Your task to perform on an android device: Open the calendar app, open the side menu, and click the "Day" option Image 0: 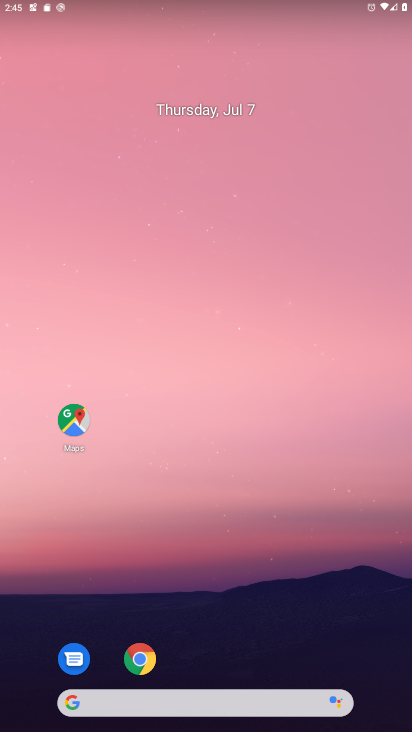
Step 0: drag from (191, 627) to (321, 87)
Your task to perform on an android device: Open the calendar app, open the side menu, and click the "Day" option Image 1: 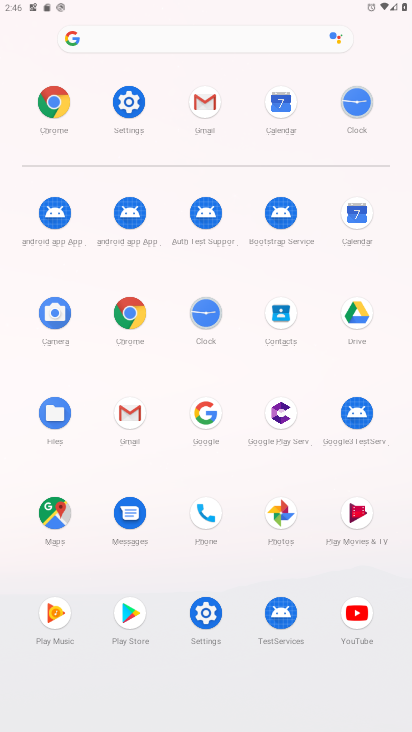
Step 1: click (142, 416)
Your task to perform on an android device: Open the calendar app, open the side menu, and click the "Day" option Image 2: 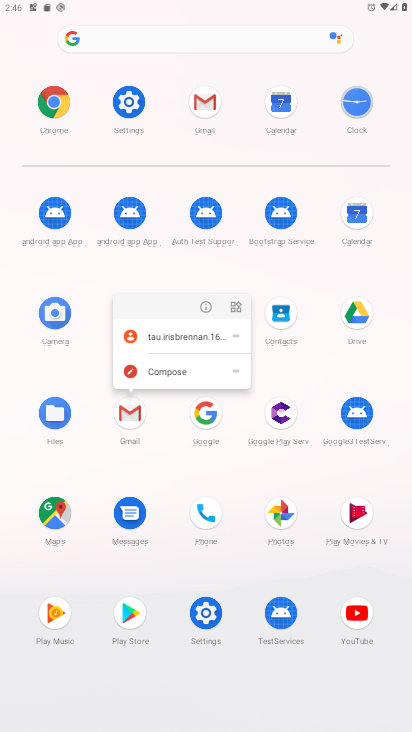
Step 2: click (362, 211)
Your task to perform on an android device: Open the calendar app, open the side menu, and click the "Day" option Image 3: 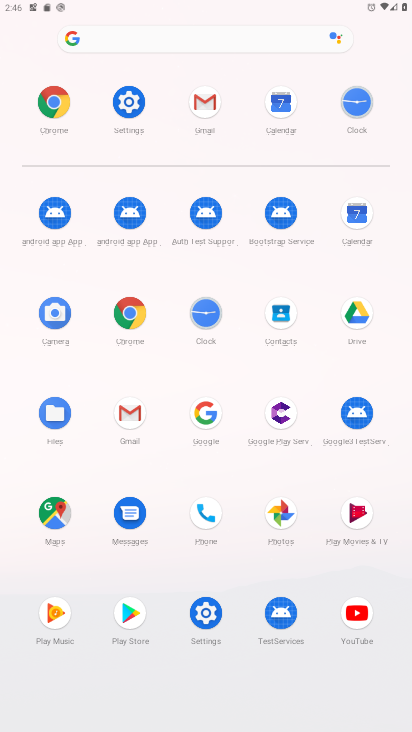
Step 3: click (360, 230)
Your task to perform on an android device: Open the calendar app, open the side menu, and click the "Day" option Image 4: 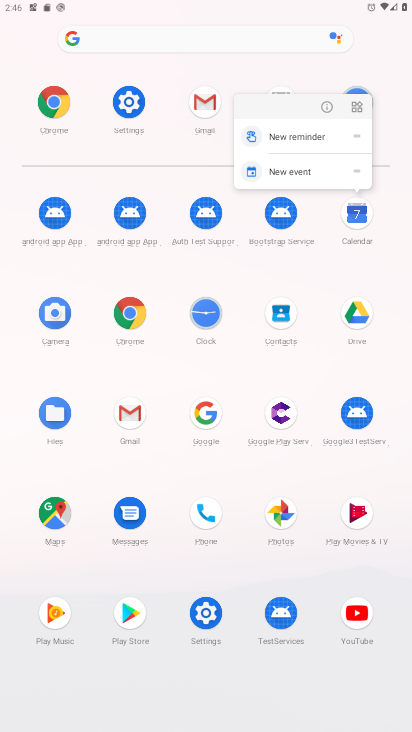
Step 4: click (320, 108)
Your task to perform on an android device: Open the calendar app, open the side menu, and click the "Day" option Image 5: 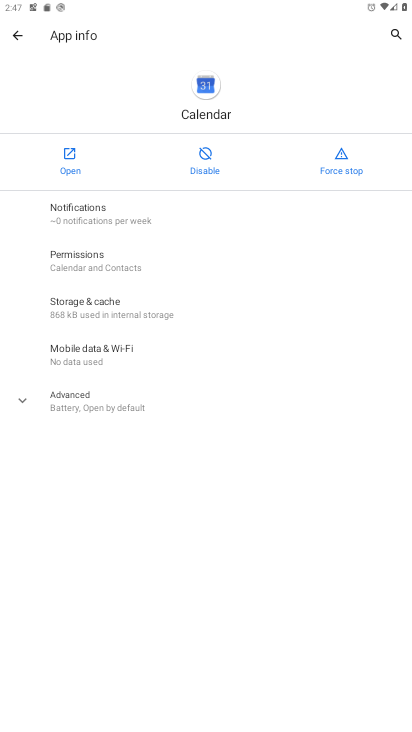
Step 5: click (52, 162)
Your task to perform on an android device: Open the calendar app, open the side menu, and click the "Day" option Image 6: 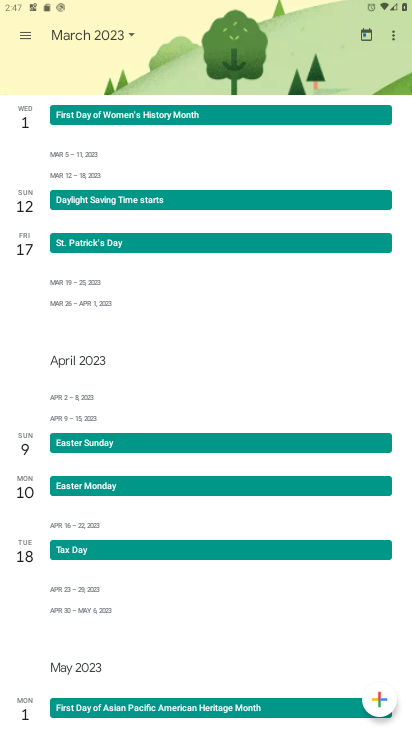
Step 6: drag from (178, 462) to (288, 129)
Your task to perform on an android device: Open the calendar app, open the side menu, and click the "Day" option Image 7: 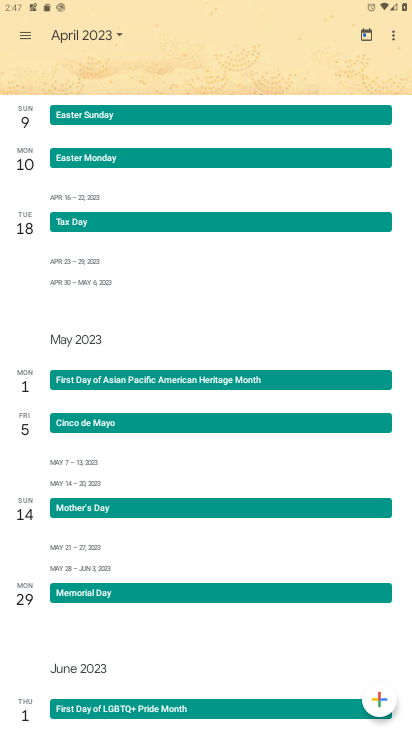
Step 7: drag from (217, 601) to (259, 363)
Your task to perform on an android device: Open the calendar app, open the side menu, and click the "Day" option Image 8: 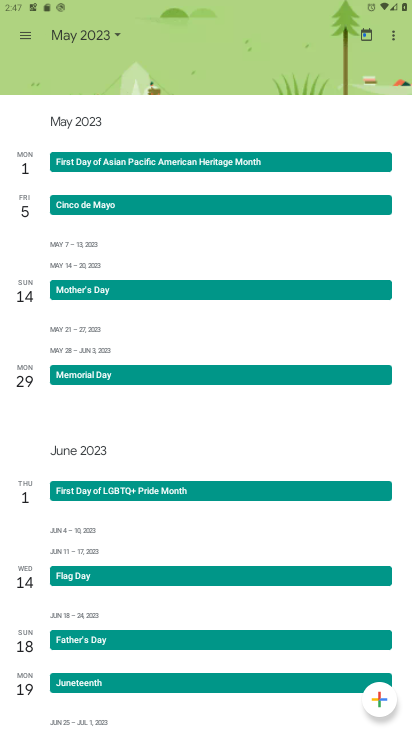
Step 8: click (96, 30)
Your task to perform on an android device: Open the calendar app, open the side menu, and click the "Day" option Image 9: 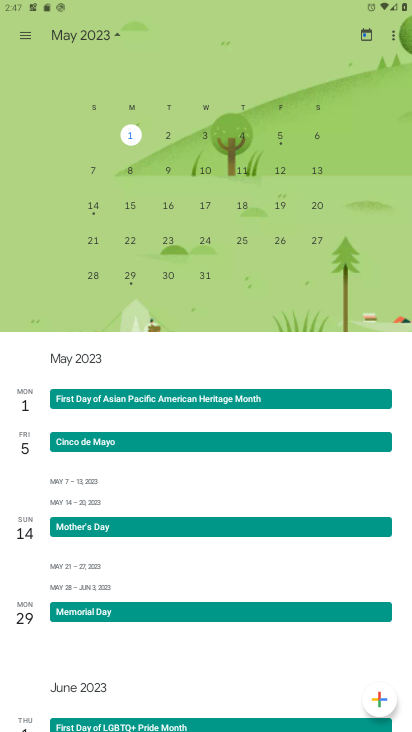
Step 9: drag from (233, 223) to (379, 254)
Your task to perform on an android device: Open the calendar app, open the side menu, and click the "Day" option Image 10: 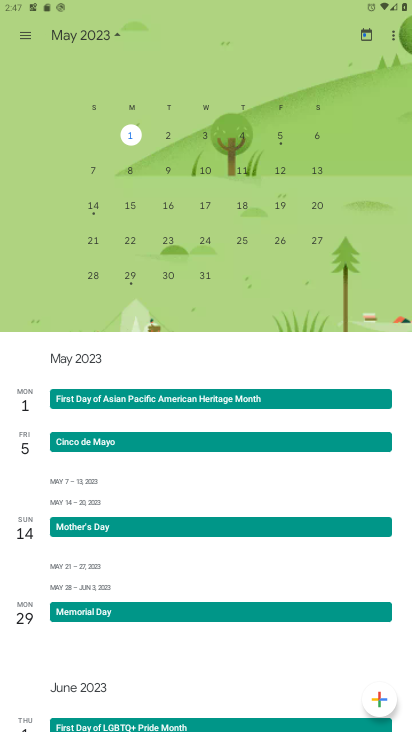
Step 10: drag from (88, 186) to (396, 218)
Your task to perform on an android device: Open the calendar app, open the side menu, and click the "Day" option Image 11: 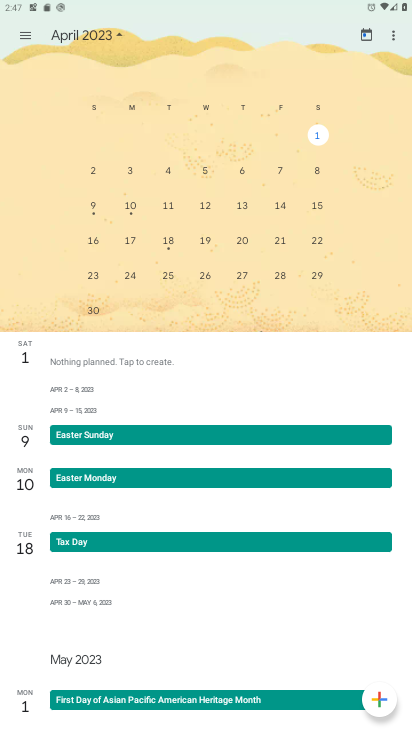
Step 11: drag from (90, 159) to (403, 205)
Your task to perform on an android device: Open the calendar app, open the side menu, and click the "Day" option Image 12: 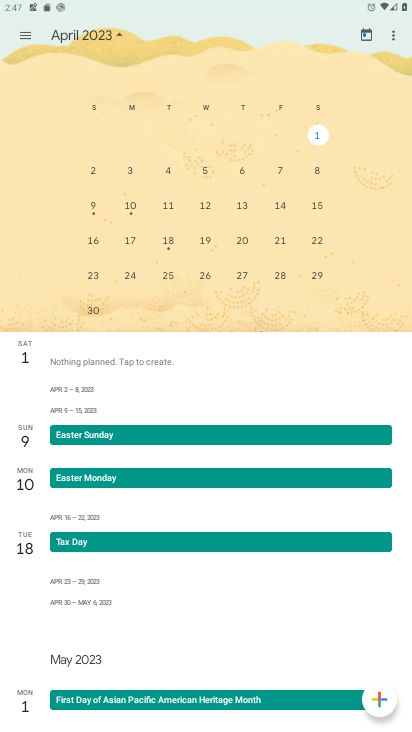
Step 12: click (95, 28)
Your task to perform on an android device: Open the calendar app, open the side menu, and click the "Day" option Image 13: 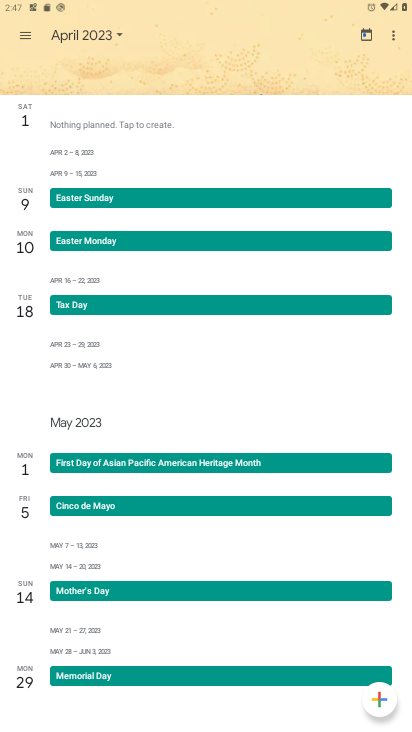
Step 13: click (84, 29)
Your task to perform on an android device: Open the calendar app, open the side menu, and click the "Day" option Image 14: 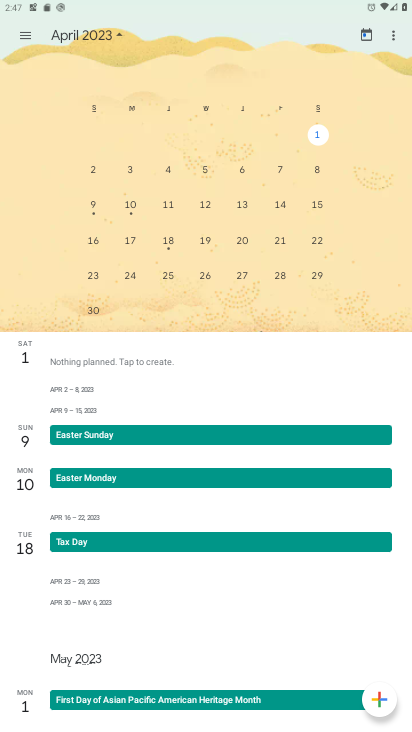
Step 14: drag from (85, 215) to (397, 278)
Your task to perform on an android device: Open the calendar app, open the side menu, and click the "Day" option Image 15: 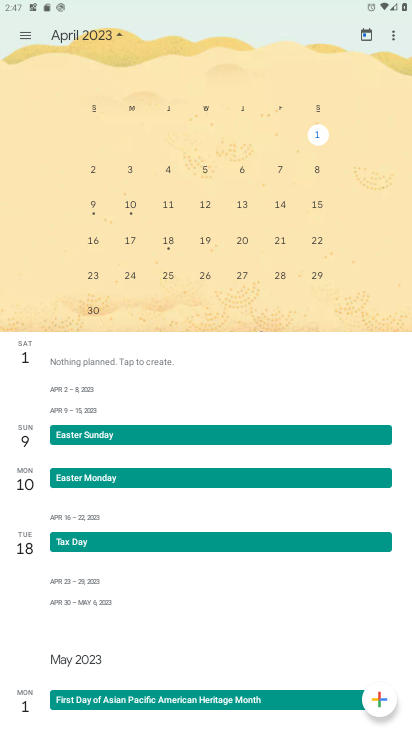
Step 15: drag from (69, 183) to (392, 0)
Your task to perform on an android device: Open the calendar app, open the side menu, and click the "Day" option Image 16: 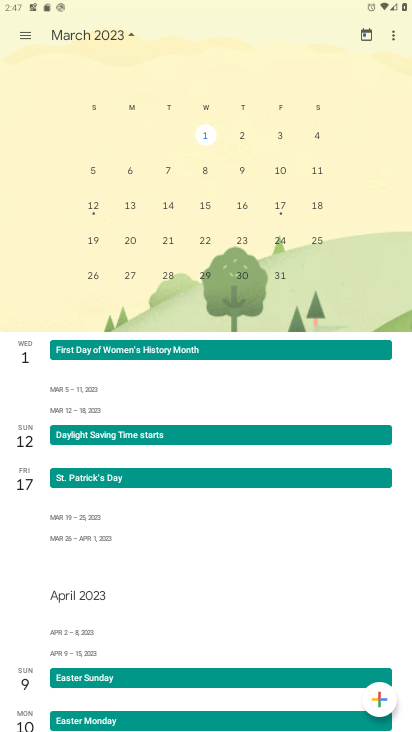
Step 16: click (366, 37)
Your task to perform on an android device: Open the calendar app, open the side menu, and click the "Day" option Image 17: 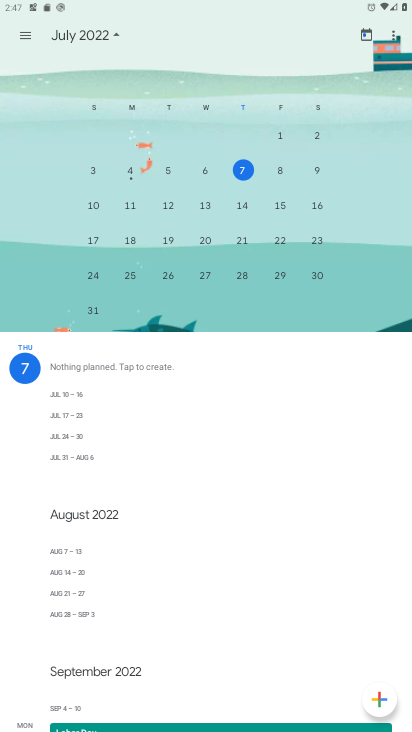
Step 17: click (243, 176)
Your task to perform on an android device: Open the calendar app, open the side menu, and click the "Day" option Image 18: 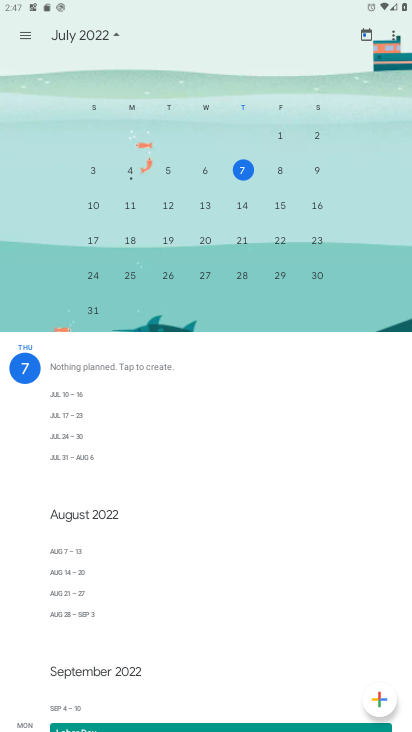
Step 18: task complete